Your task to perform on an android device: What's the weather today? Image 0: 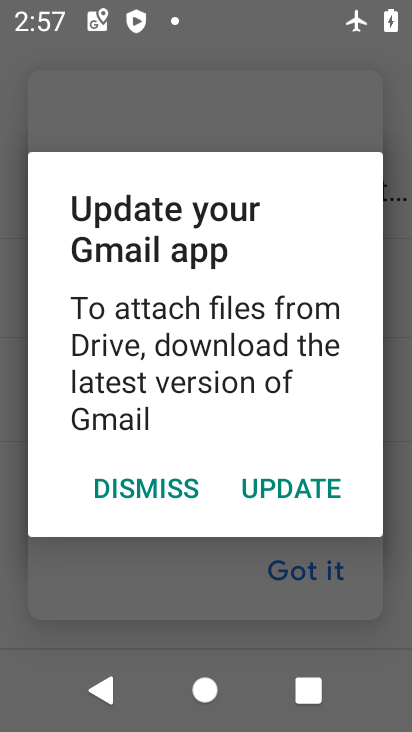
Step 0: press home button
Your task to perform on an android device: What's the weather today? Image 1: 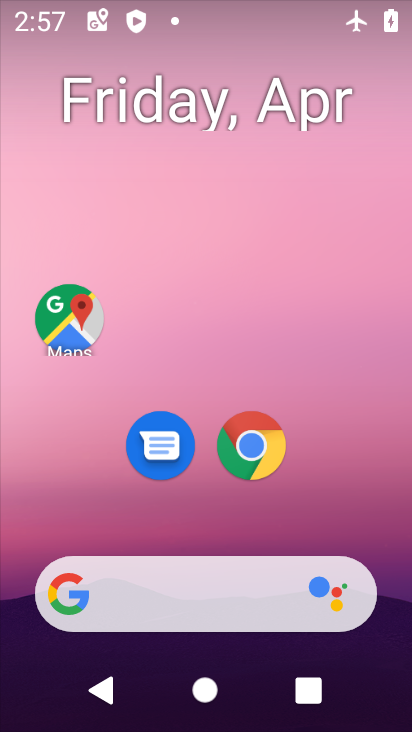
Step 1: drag from (281, 373) to (147, 88)
Your task to perform on an android device: What's the weather today? Image 2: 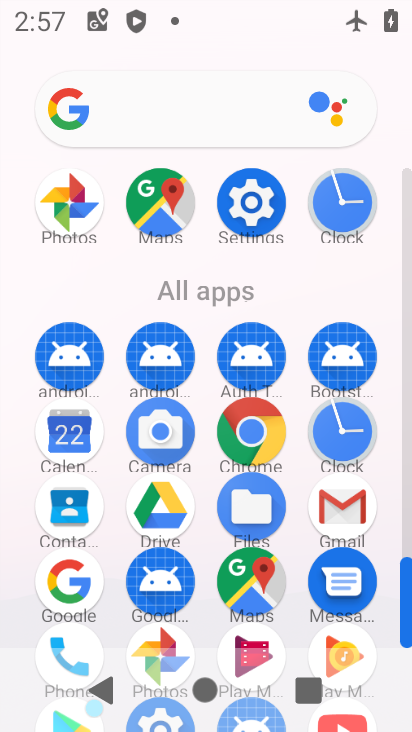
Step 2: click (247, 433)
Your task to perform on an android device: What's the weather today? Image 3: 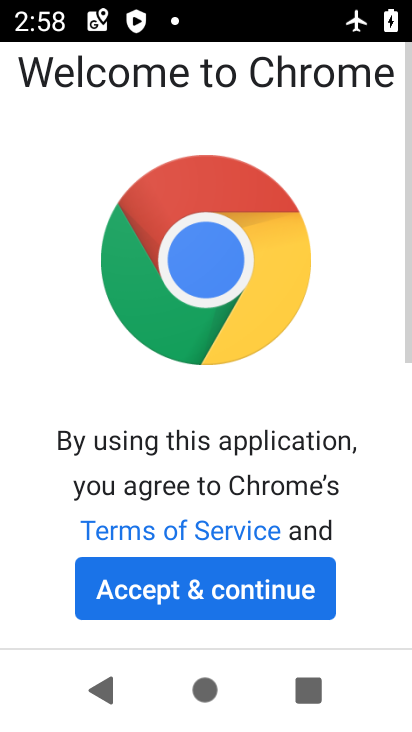
Step 3: click (185, 580)
Your task to perform on an android device: What's the weather today? Image 4: 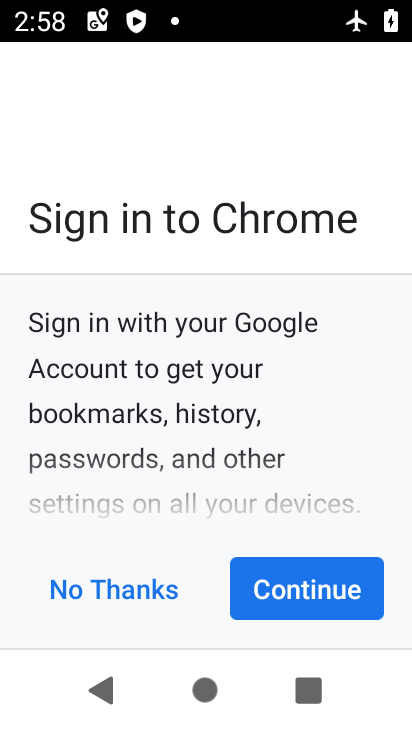
Step 4: click (287, 600)
Your task to perform on an android device: What's the weather today? Image 5: 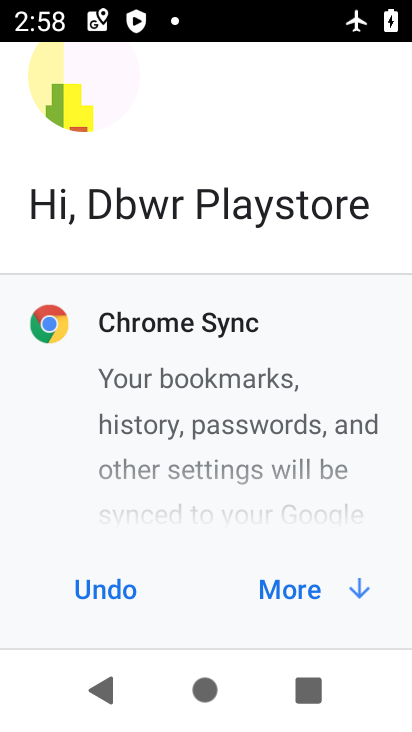
Step 5: click (314, 598)
Your task to perform on an android device: What's the weather today? Image 6: 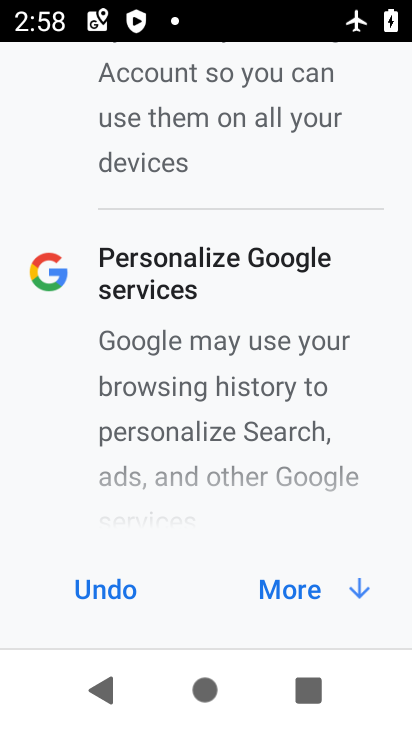
Step 6: click (299, 593)
Your task to perform on an android device: What's the weather today? Image 7: 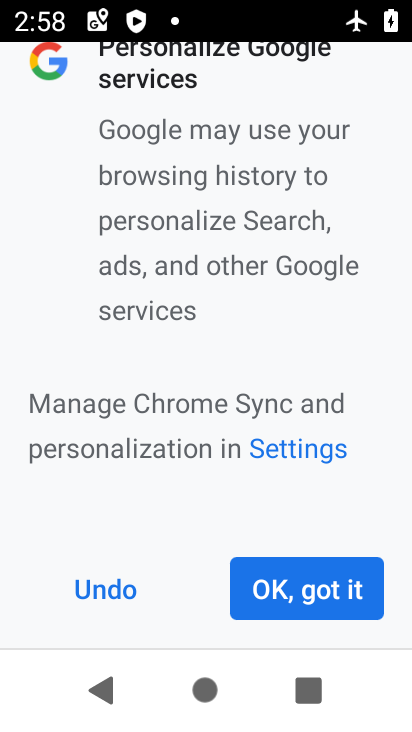
Step 7: click (349, 591)
Your task to perform on an android device: What's the weather today? Image 8: 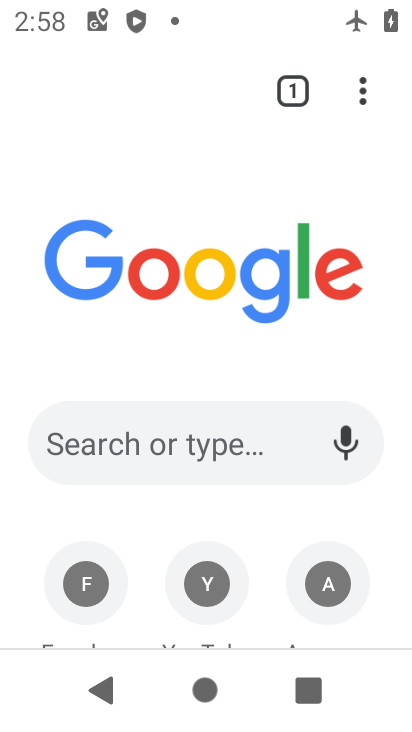
Step 8: click (119, 424)
Your task to perform on an android device: What's the weather today? Image 9: 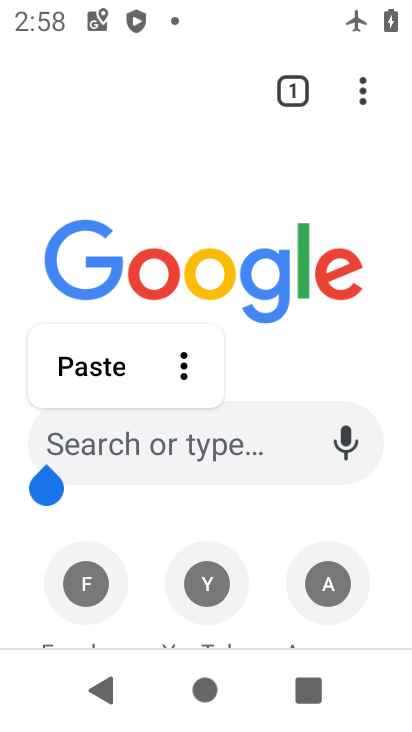
Step 9: click (112, 449)
Your task to perform on an android device: What's the weather today? Image 10: 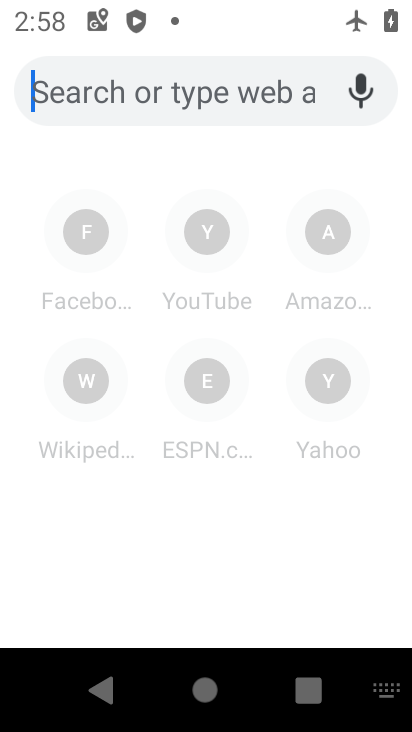
Step 10: type "whats the weather today"
Your task to perform on an android device: What's the weather today? Image 11: 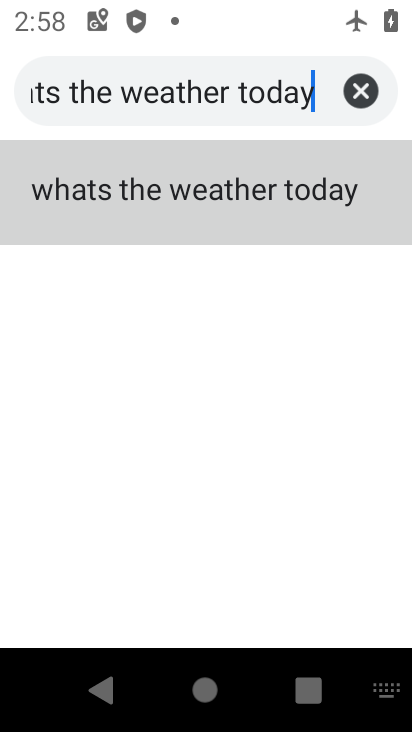
Step 11: click (243, 212)
Your task to perform on an android device: What's the weather today? Image 12: 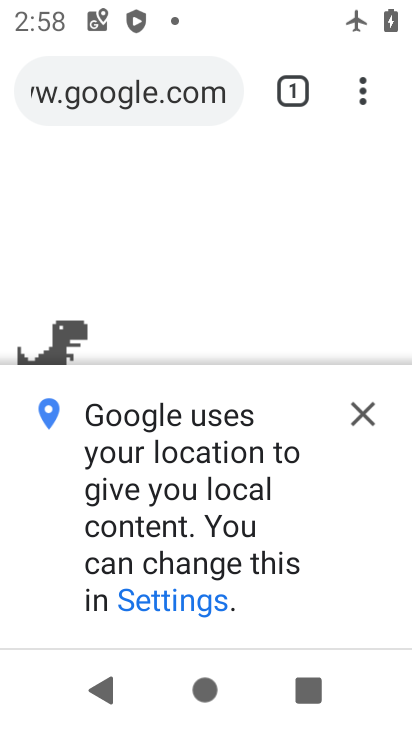
Step 12: drag from (265, 309) to (253, 124)
Your task to perform on an android device: What's the weather today? Image 13: 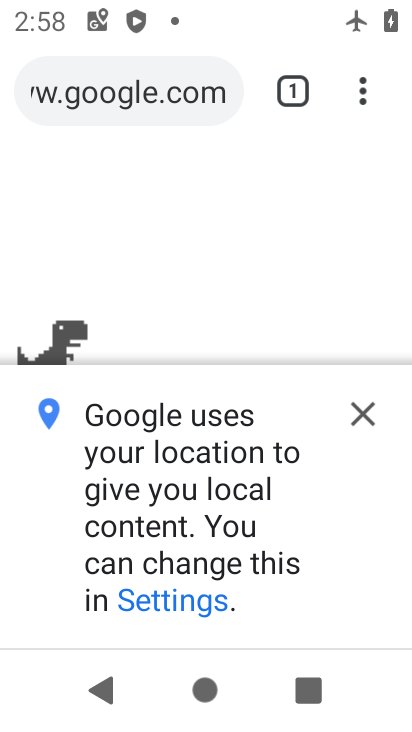
Step 13: click (360, 413)
Your task to perform on an android device: What's the weather today? Image 14: 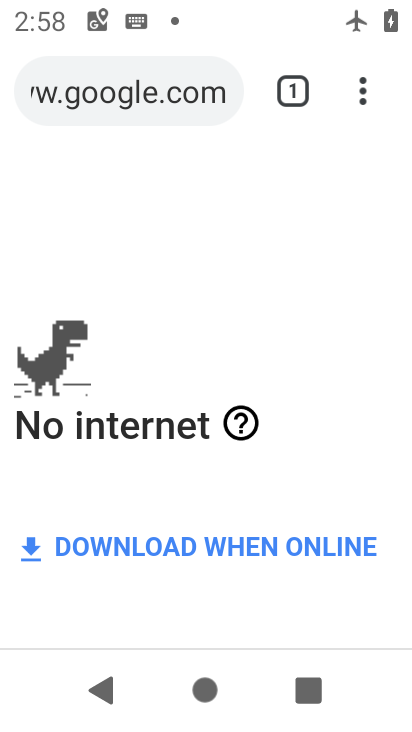
Step 14: task complete